Your task to perform on an android device: Open Google Chrome and click the shortcut for Amazon.com Image 0: 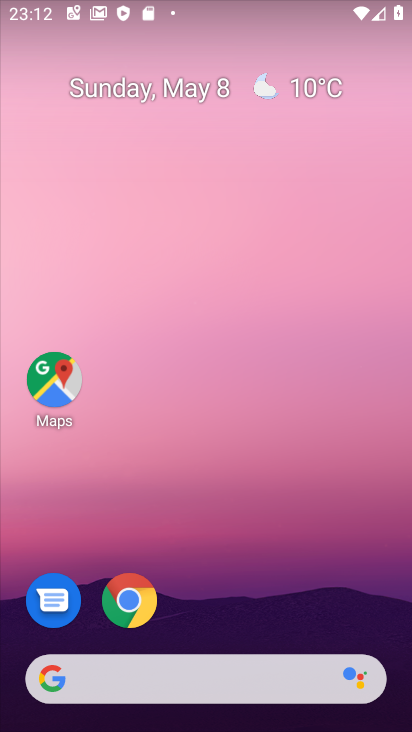
Step 0: click (131, 602)
Your task to perform on an android device: Open Google Chrome and click the shortcut for Amazon.com Image 1: 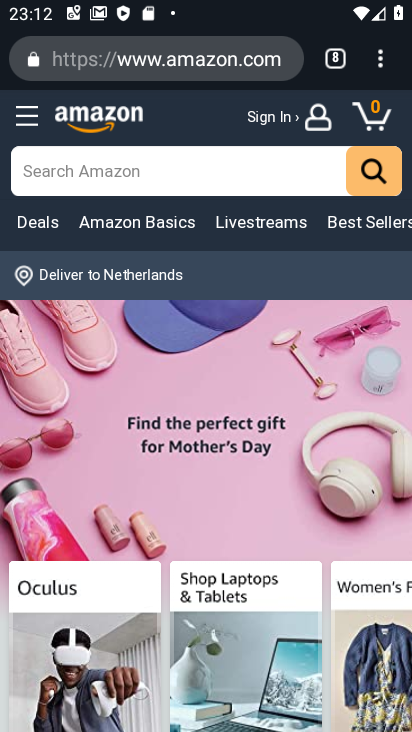
Step 1: task complete